Your task to perform on an android device: choose inbox layout in the gmail app Image 0: 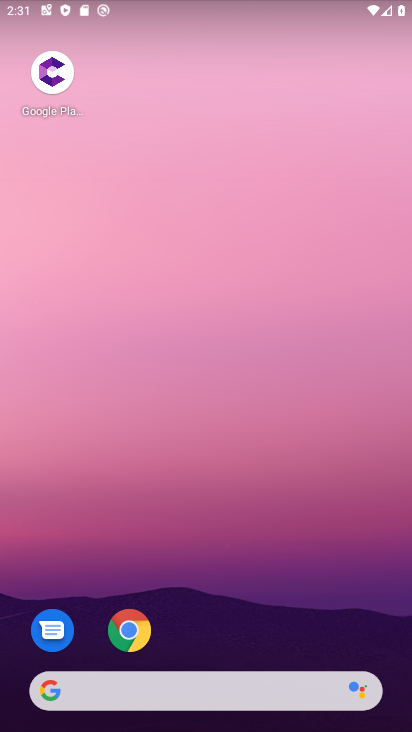
Step 0: drag from (243, 607) to (219, 277)
Your task to perform on an android device: choose inbox layout in the gmail app Image 1: 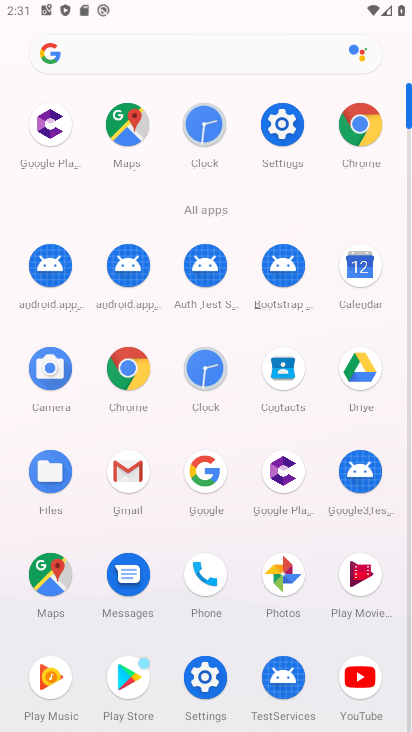
Step 1: click (127, 472)
Your task to perform on an android device: choose inbox layout in the gmail app Image 2: 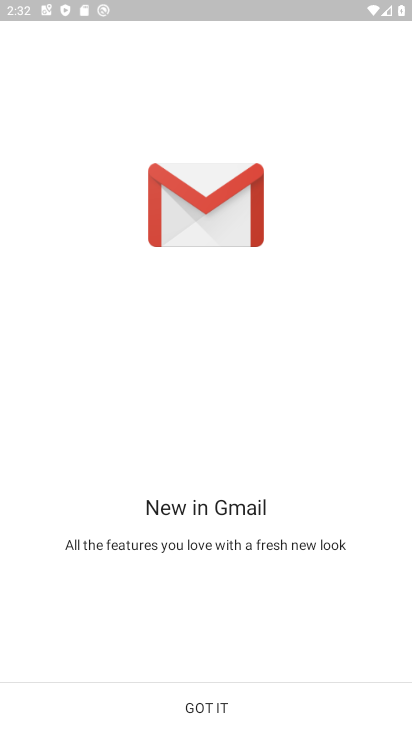
Step 2: click (207, 699)
Your task to perform on an android device: choose inbox layout in the gmail app Image 3: 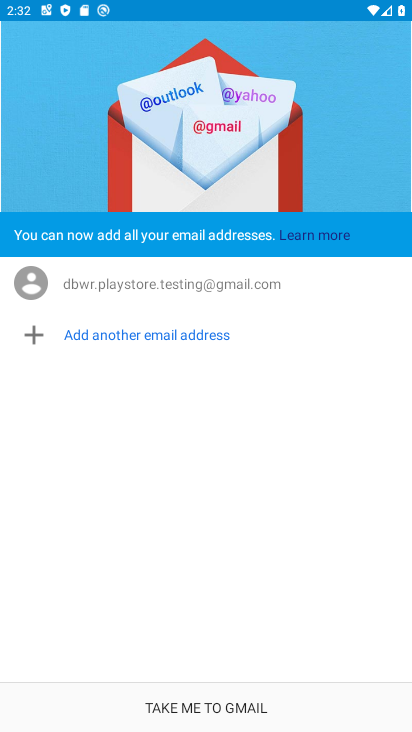
Step 3: click (226, 702)
Your task to perform on an android device: choose inbox layout in the gmail app Image 4: 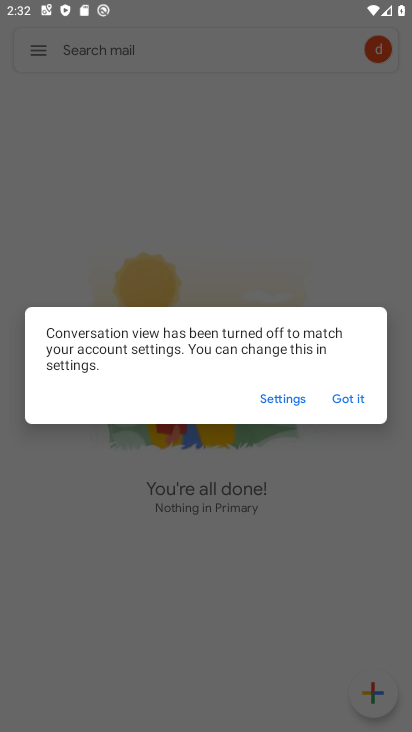
Step 4: click (349, 396)
Your task to perform on an android device: choose inbox layout in the gmail app Image 5: 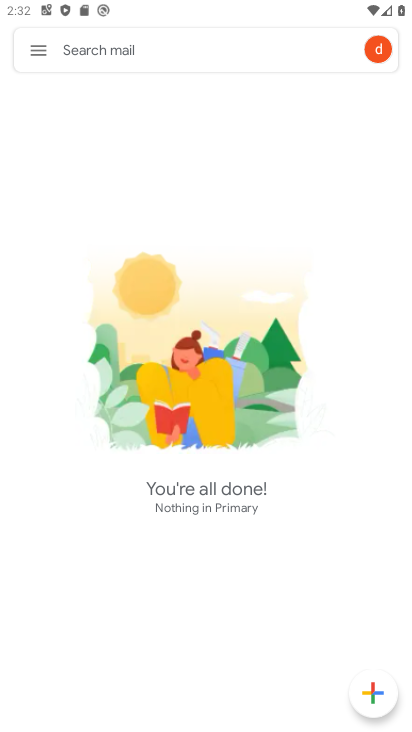
Step 5: click (37, 53)
Your task to perform on an android device: choose inbox layout in the gmail app Image 6: 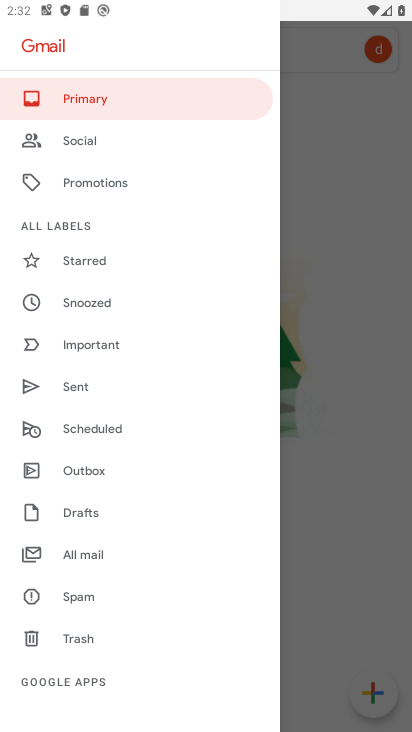
Step 6: drag from (107, 644) to (142, 445)
Your task to perform on an android device: choose inbox layout in the gmail app Image 7: 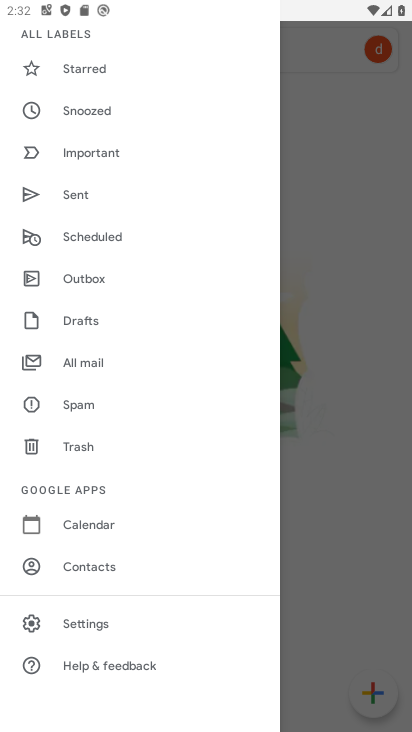
Step 7: click (84, 629)
Your task to perform on an android device: choose inbox layout in the gmail app Image 8: 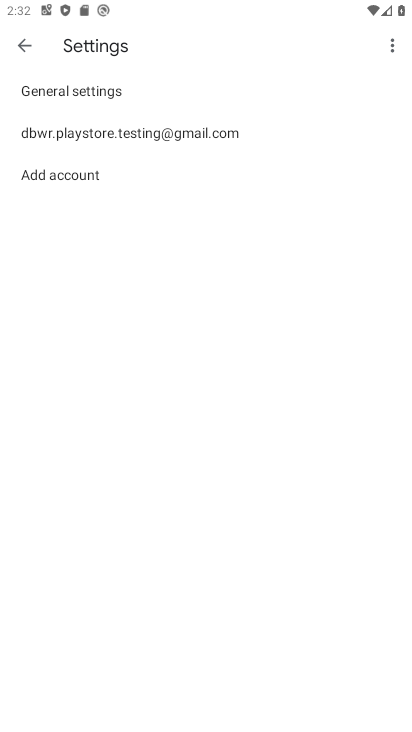
Step 8: click (165, 129)
Your task to perform on an android device: choose inbox layout in the gmail app Image 9: 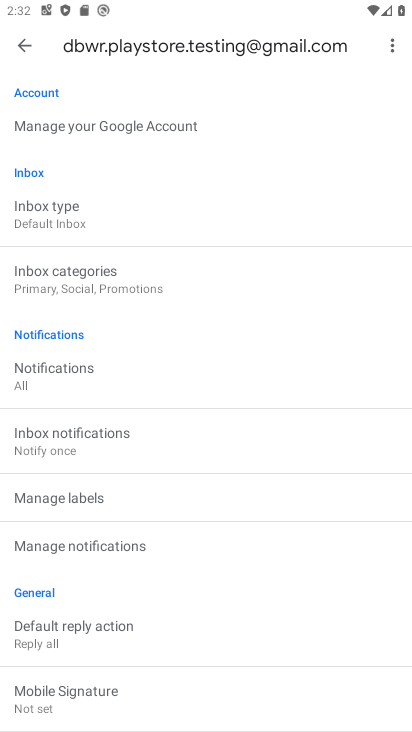
Step 9: click (76, 222)
Your task to perform on an android device: choose inbox layout in the gmail app Image 10: 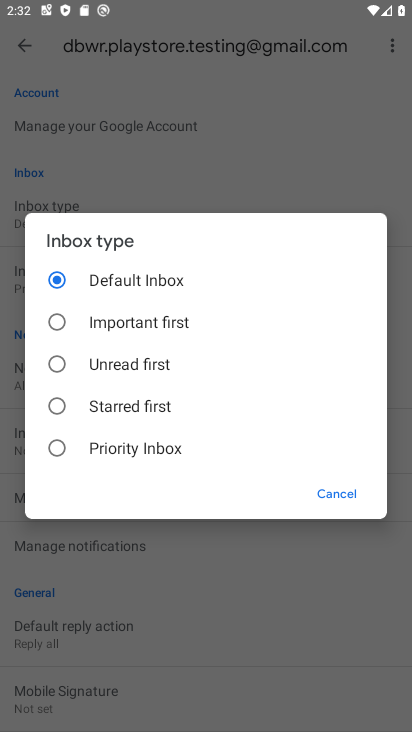
Step 10: click (99, 316)
Your task to perform on an android device: choose inbox layout in the gmail app Image 11: 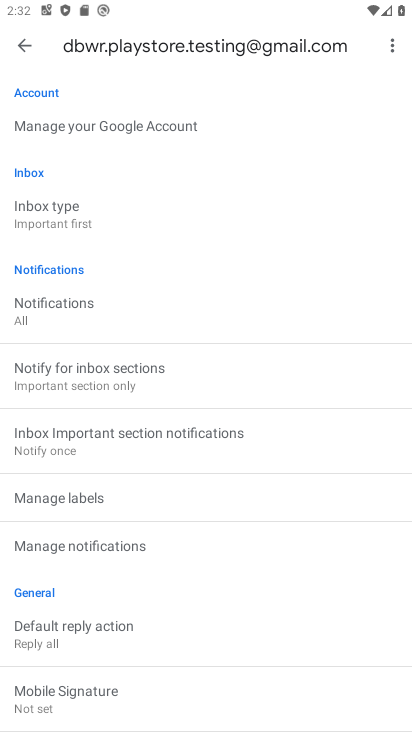
Step 11: task complete